Your task to perform on an android device: open device folders in google photos Image 0: 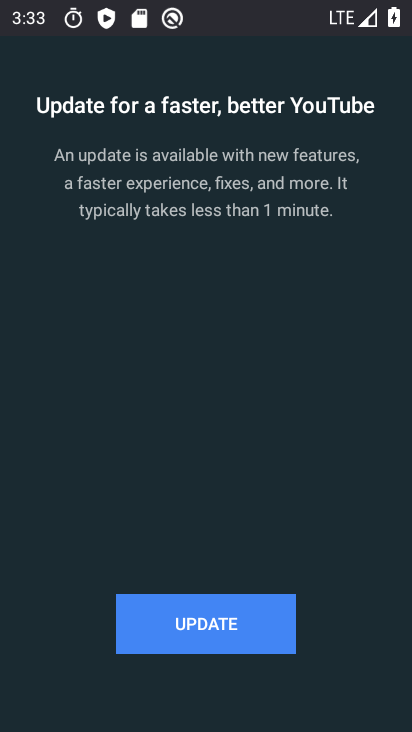
Step 0: press home button
Your task to perform on an android device: open device folders in google photos Image 1: 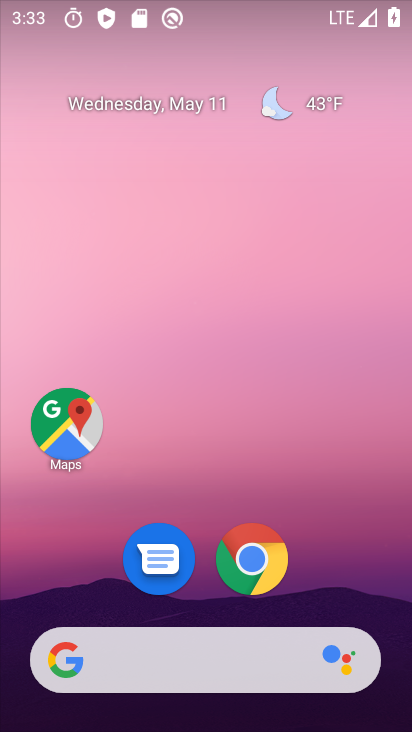
Step 1: drag from (341, 562) to (235, 67)
Your task to perform on an android device: open device folders in google photos Image 2: 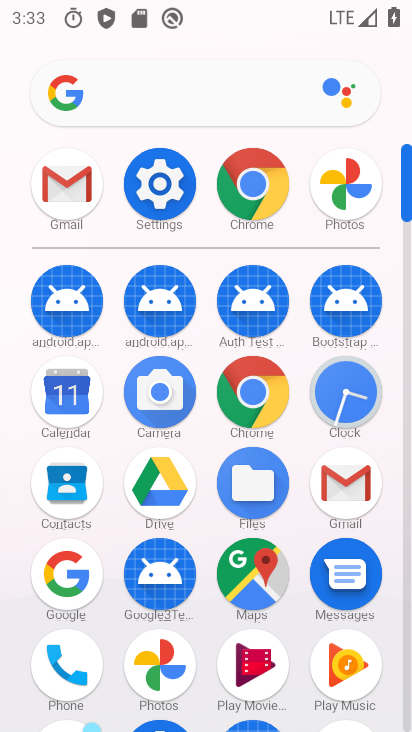
Step 2: click (343, 194)
Your task to perform on an android device: open device folders in google photos Image 3: 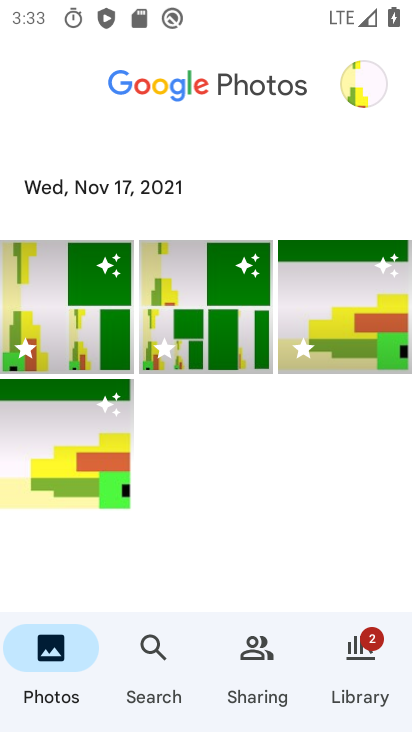
Step 3: click (145, 649)
Your task to perform on an android device: open device folders in google photos Image 4: 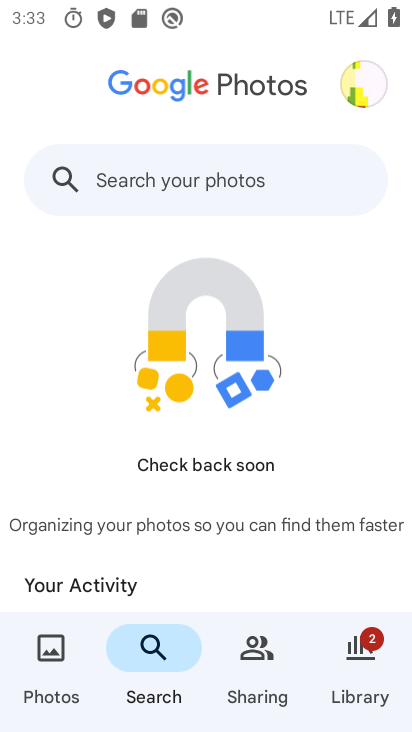
Step 4: click (144, 175)
Your task to perform on an android device: open device folders in google photos Image 5: 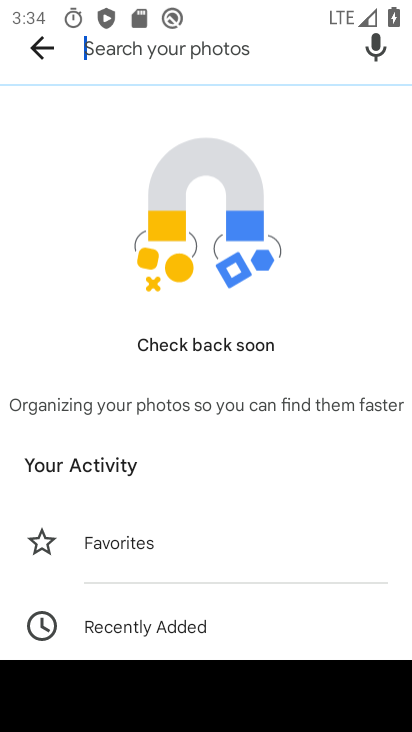
Step 5: type "Device folder"
Your task to perform on an android device: open device folders in google photos Image 6: 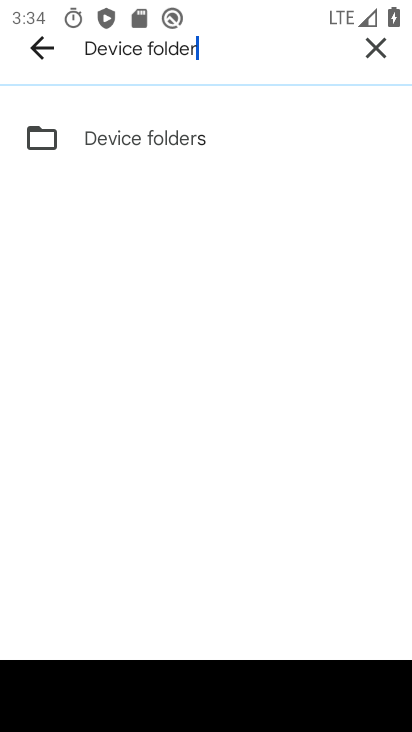
Step 6: click (232, 142)
Your task to perform on an android device: open device folders in google photos Image 7: 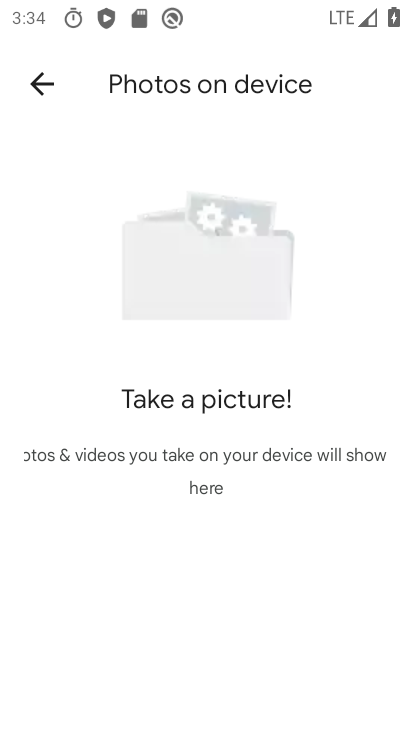
Step 7: task complete